Your task to perform on an android device: manage bookmarks in the chrome app Image 0: 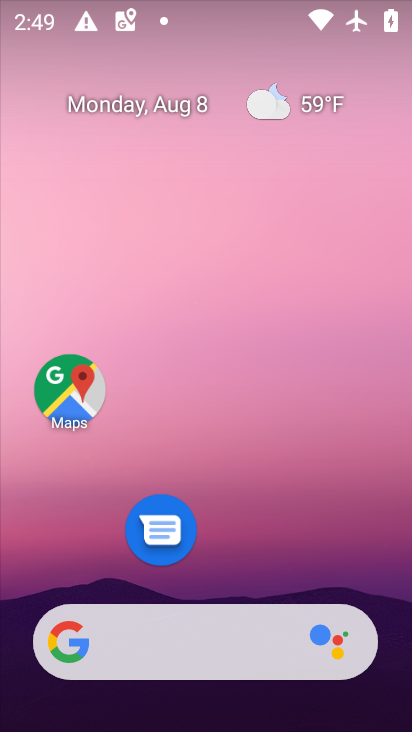
Step 0: drag from (217, 468) to (211, 47)
Your task to perform on an android device: manage bookmarks in the chrome app Image 1: 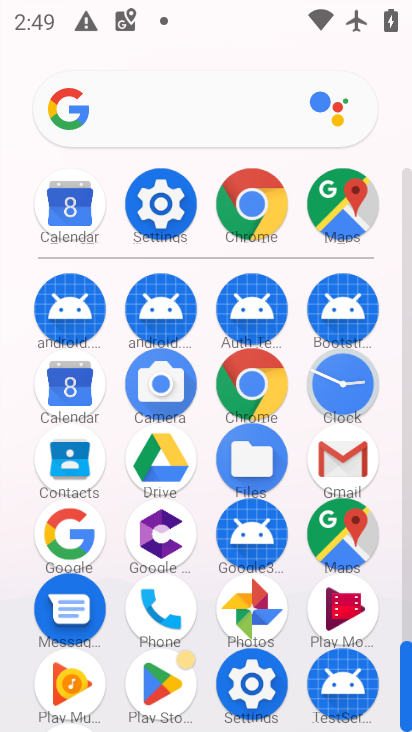
Step 1: click (251, 392)
Your task to perform on an android device: manage bookmarks in the chrome app Image 2: 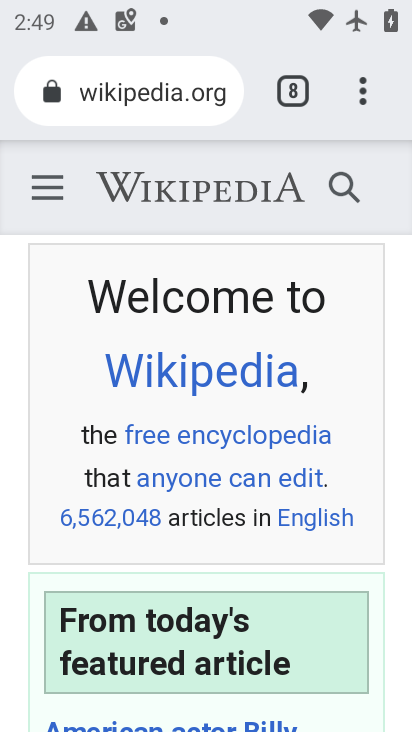
Step 2: drag from (359, 102) to (102, 360)
Your task to perform on an android device: manage bookmarks in the chrome app Image 3: 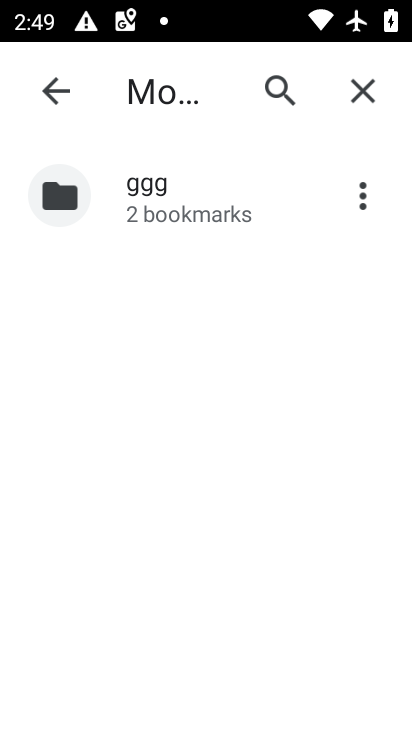
Step 3: click (361, 205)
Your task to perform on an android device: manage bookmarks in the chrome app Image 4: 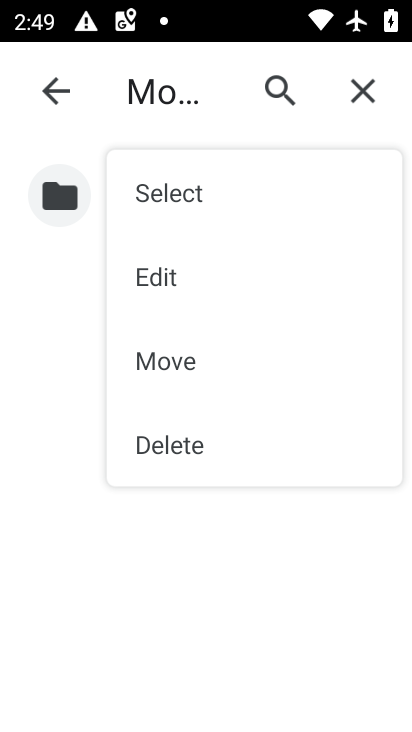
Step 4: click (161, 275)
Your task to perform on an android device: manage bookmarks in the chrome app Image 5: 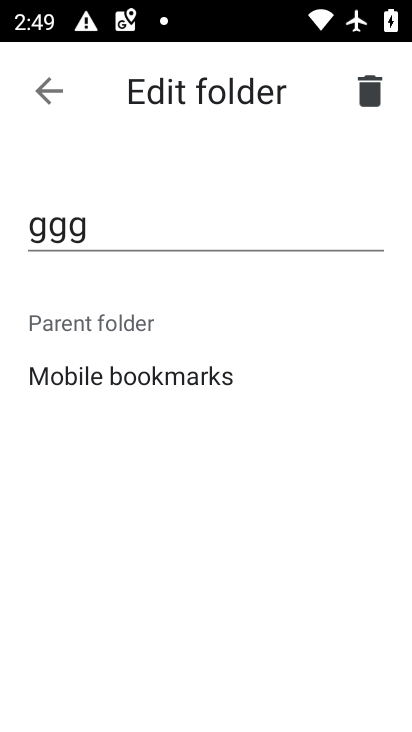
Step 5: click (72, 226)
Your task to perform on an android device: manage bookmarks in the chrome app Image 6: 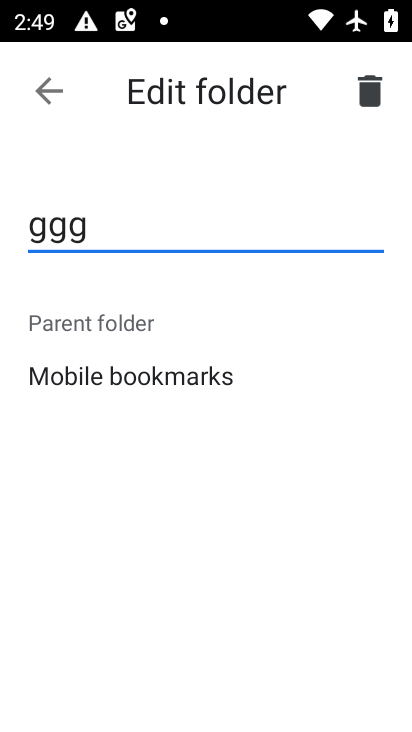
Step 6: click (72, 226)
Your task to perform on an android device: manage bookmarks in the chrome app Image 7: 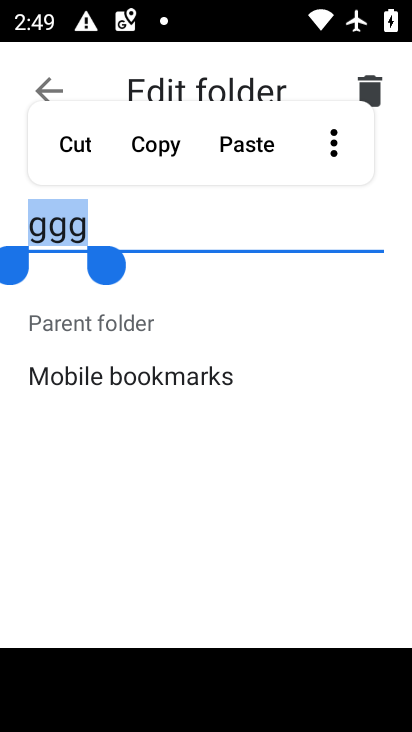
Step 7: click (76, 137)
Your task to perform on an android device: manage bookmarks in the chrome app Image 8: 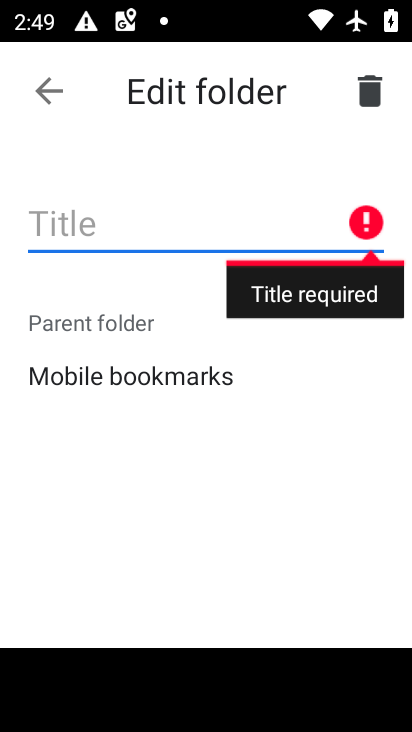
Step 8: type "iuyuy"
Your task to perform on an android device: manage bookmarks in the chrome app Image 9: 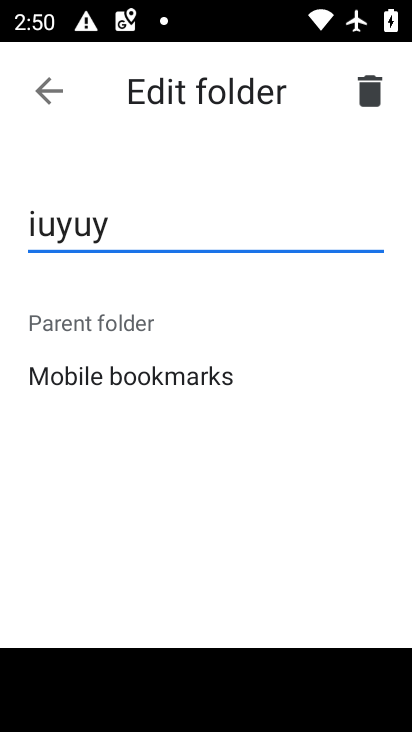
Step 9: click (60, 89)
Your task to perform on an android device: manage bookmarks in the chrome app Image 10: 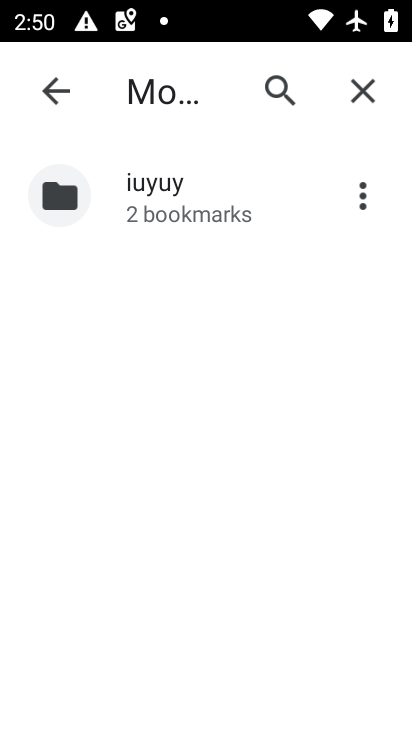
Step 10: task complete